Your task to perform on an android device: open wifi settings Image 0: 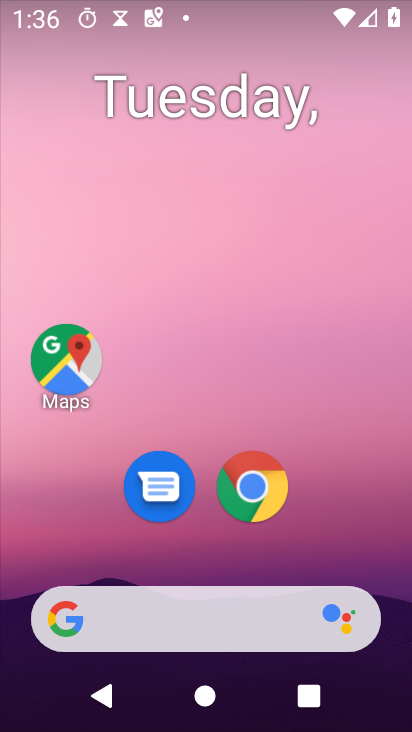
Step 0: drag from (386, 524) to (305, 106)
Your task to perform on an android device: open wifi settings Image 1: 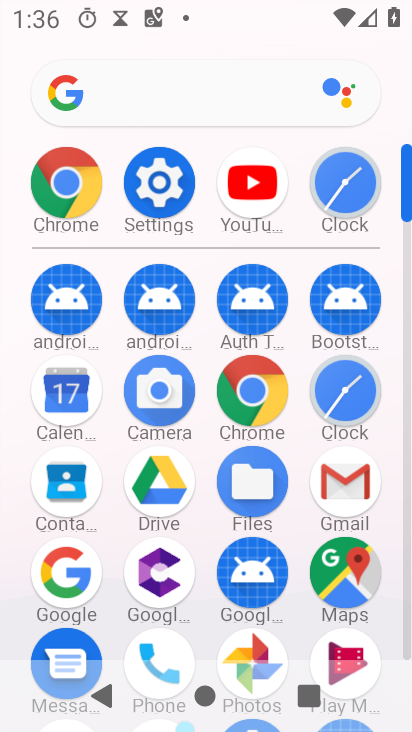
Step 1: click (157, 195)
Your task to perform on an android device: open wifi settings Image 2: 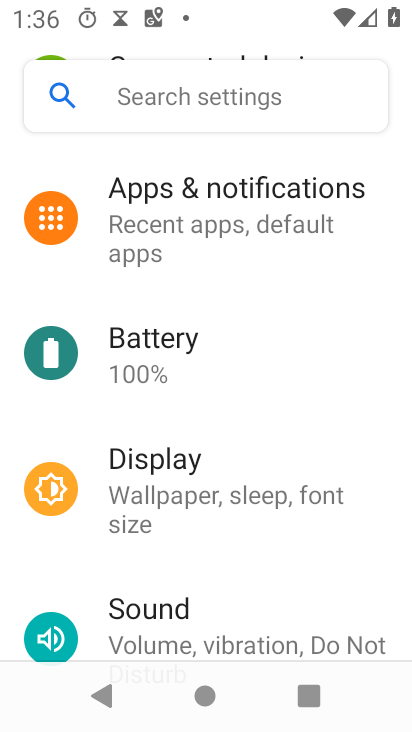
Step 2: drag from (226, 199) to (225, 670)
Your task to perform on an android device: open wifi settings Image 3: 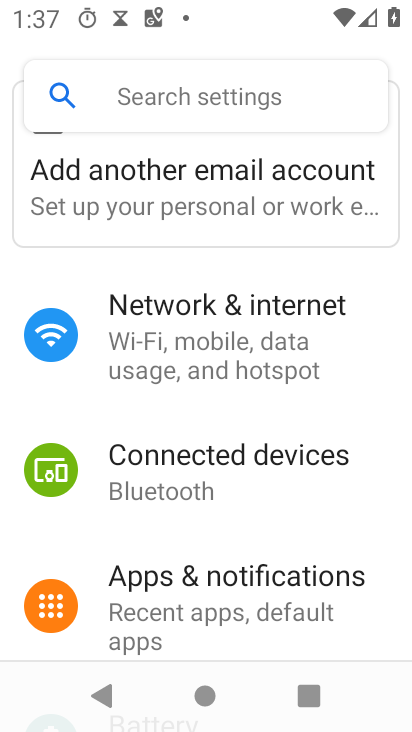
Step 3: click (206, 314)
Your task to perform on an android device: open wifi settings Image 4: 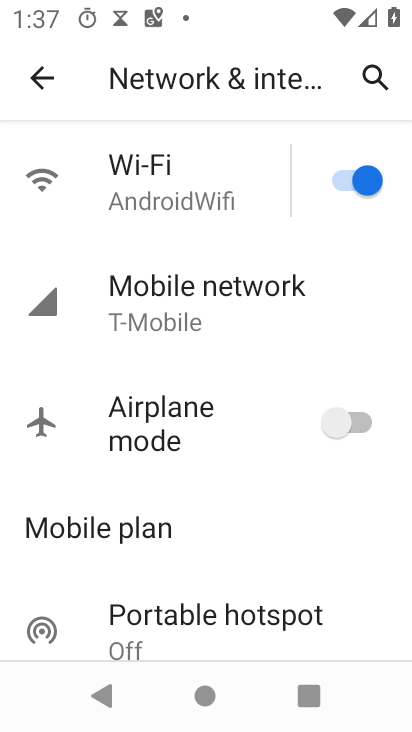
Step 4: click (178, 197)
Your task to perform on an android device: open wifi settings Image 5: 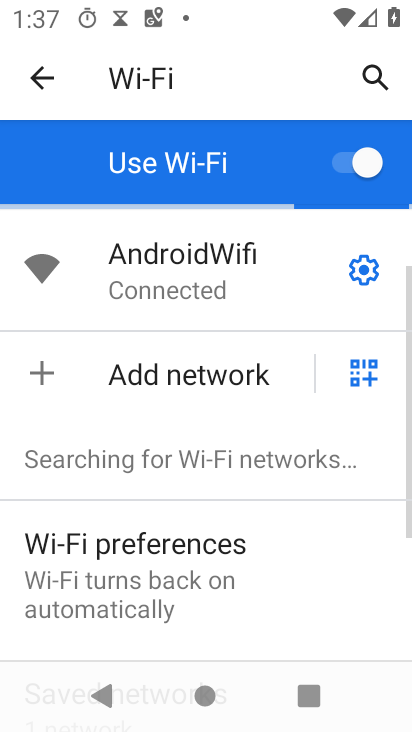
Step 5: task complete